Your task to perform on an android device: open app "Contacts" (install if not already installed) Image 0: 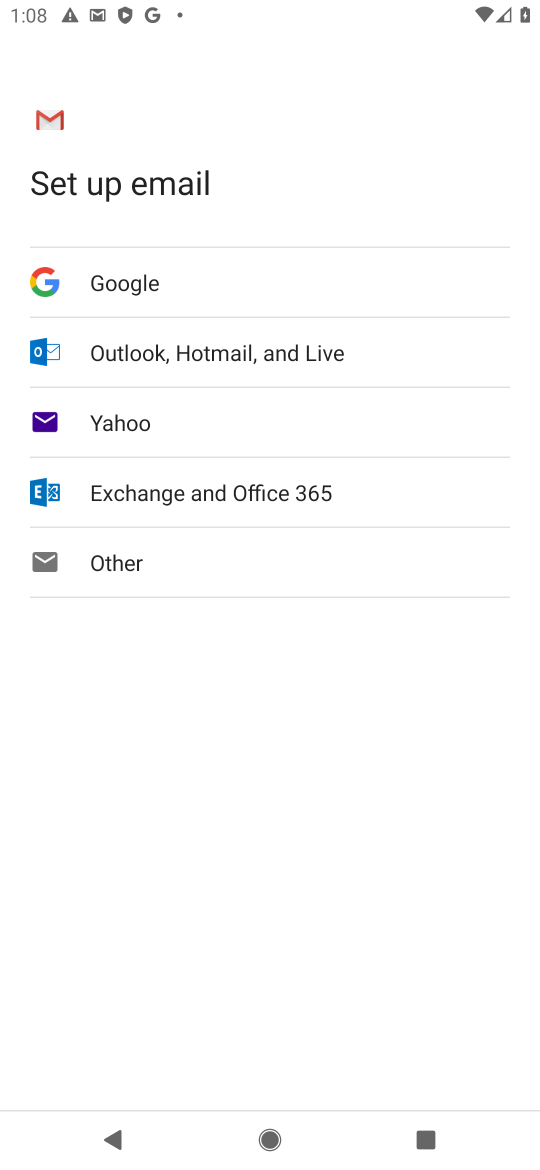
Step 0: press home button
Your task to perform on an android device: open app "Contacts" (install if not already installed) Image 1: 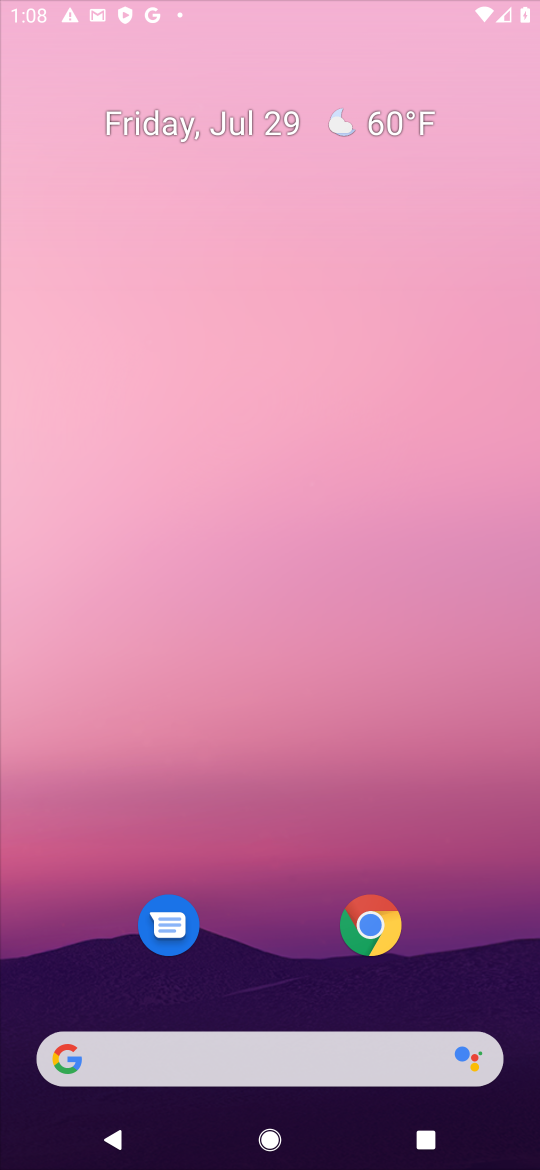
Step 1: drag from (302, 978) to (352, 6)
Your task to perform on an android device: open app "Contacts" (install if not already installed) Image 2: 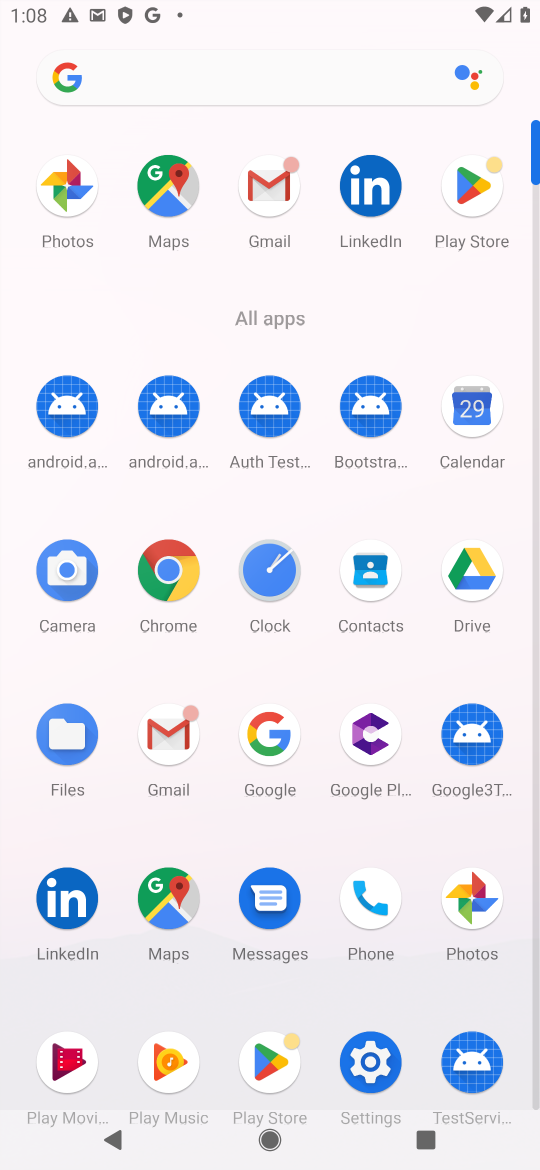
Step 2: click (488, 189)
Your task to perform on an android device: open app "Contacts" (install if not already installed) Image 3: 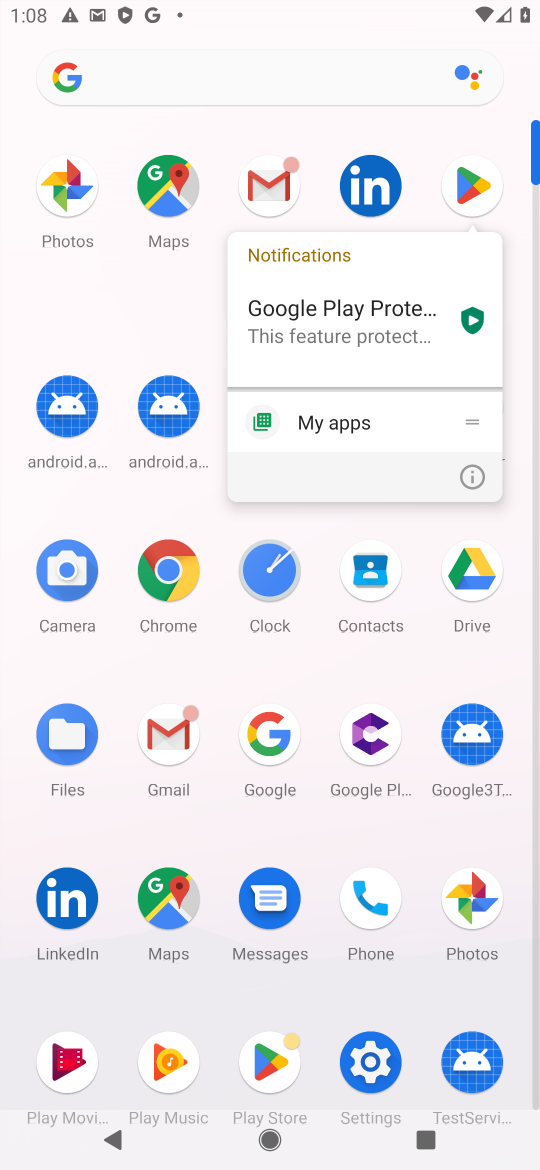
Step 3: click (488, 189)
Your task to perform on an android device: open app "Contacts" (install if not already installed) Image 4: 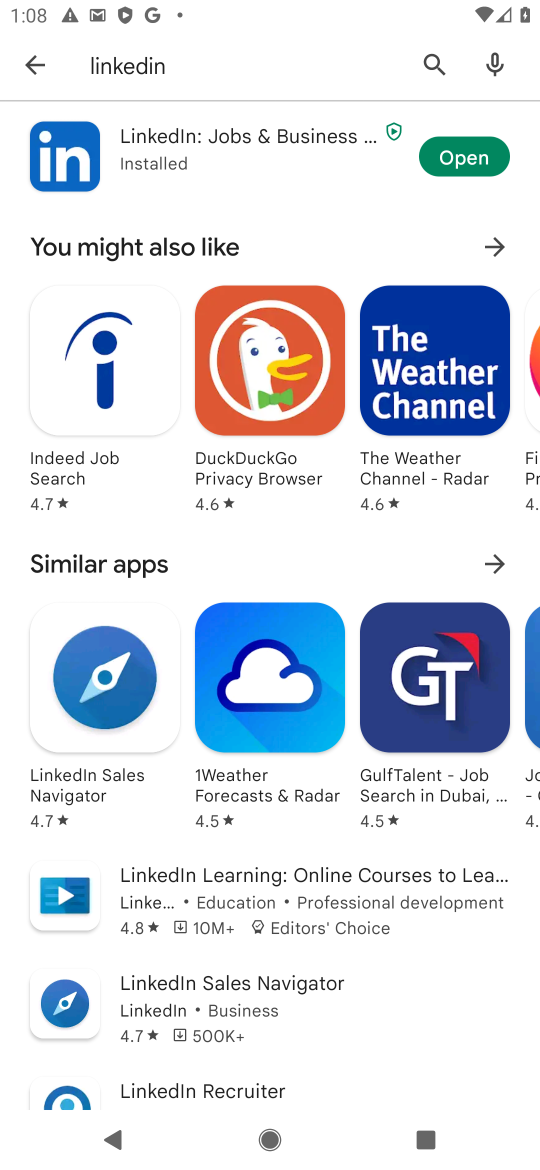
Step 4: click (488, 189)
Your task to perform on an android device: open app "Contacts" (install if not already installed) Image 5: 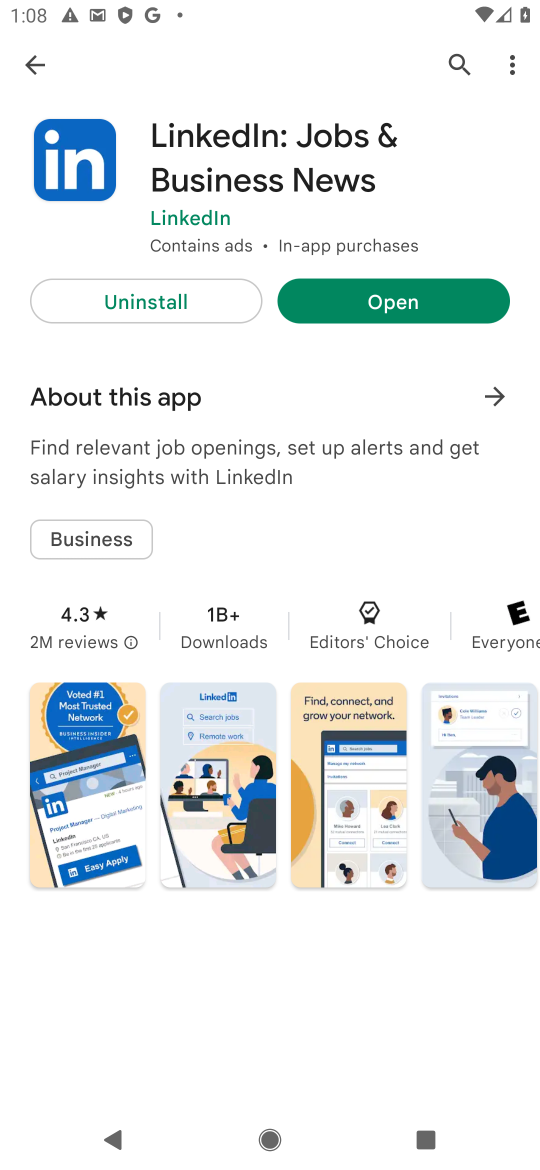
Step 5: click (423, 66)
Your task to perform on an android device: open app "Contacts" (install if not already installed) Image 6: 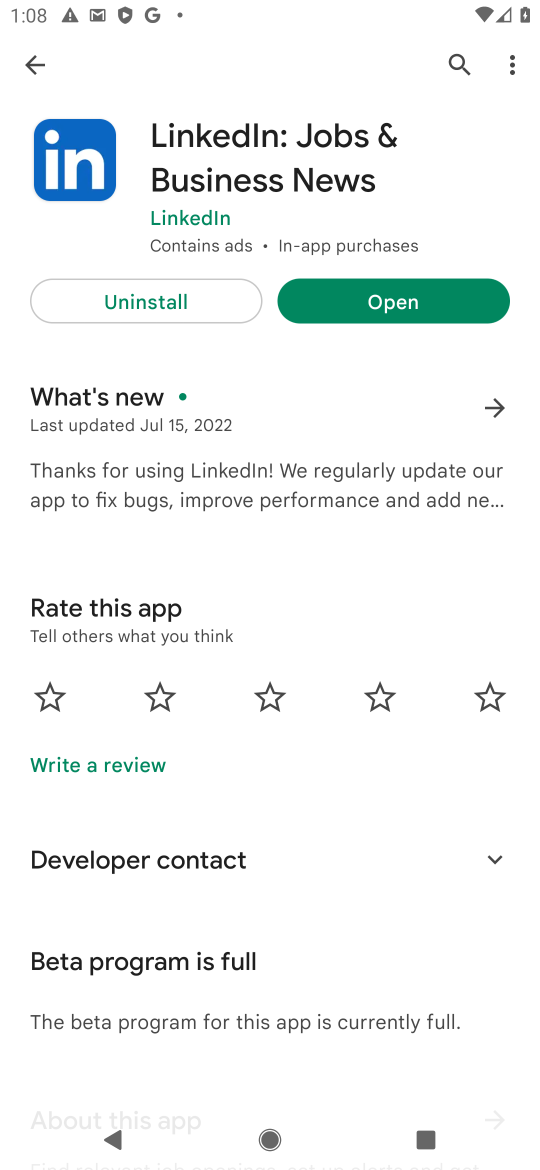
Step 6: click (445, 62)
Your task to perform on an android device: open app "Contacts" (install if not already installed) Image 7: 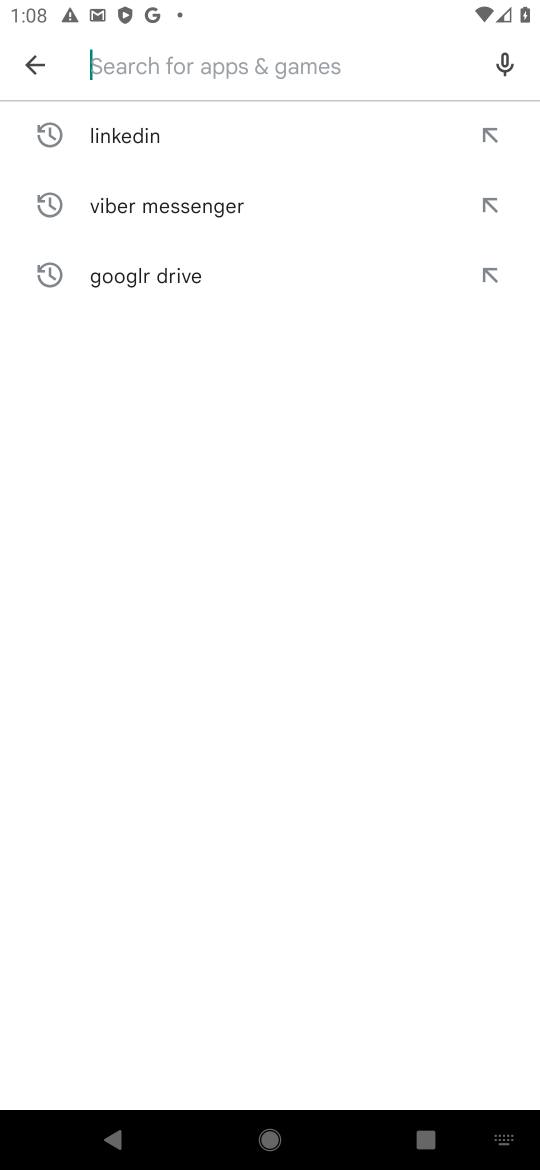
Step 7: type "contacts"
Your task to perform on an android device: open app "Contacts" (install if not already installed) Image 8: 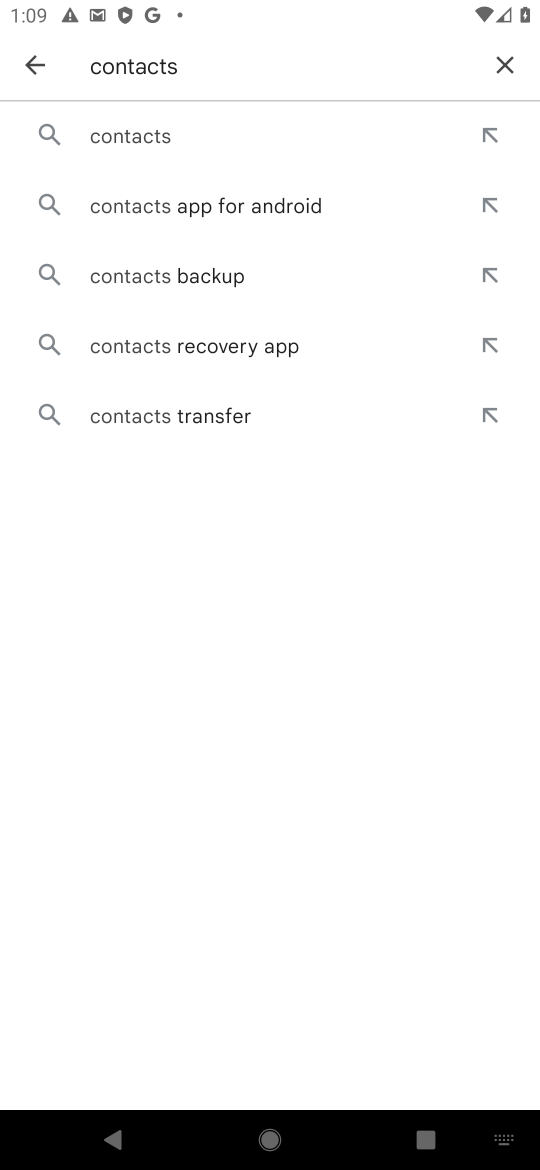
Step 8: click (122, 132)
Your task to perform on an android device: open app "Contacts" (install if not already installed) Image 9: 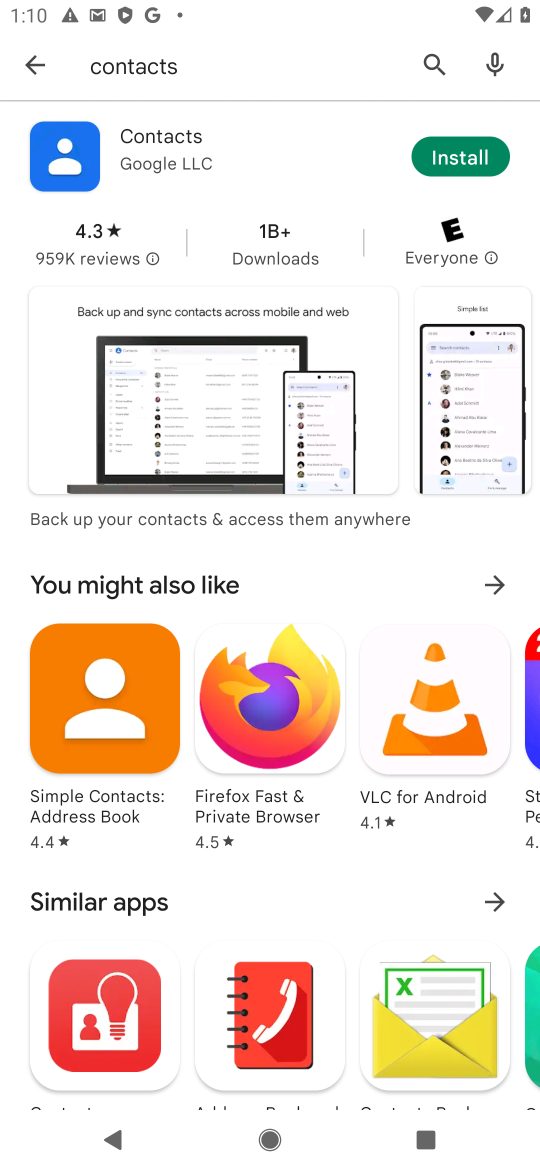
Step 9: click (462, 157)
Your task to perform on an android device: open app "Contacts" (install if not already installed) Image 10: 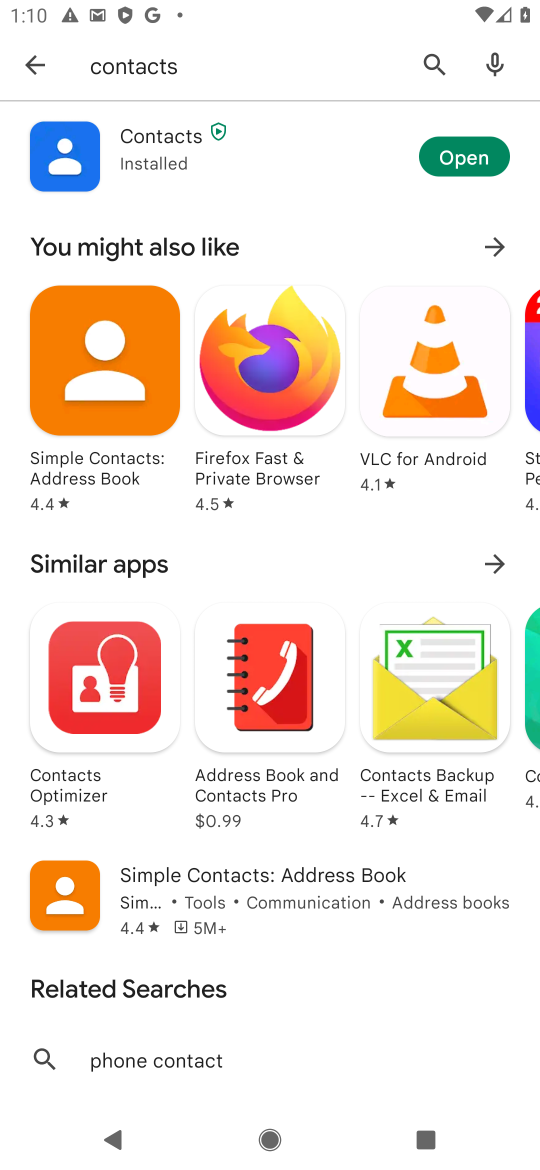
Step 10: click (471, 150)
Your task to perform on an android device: open app "Contacts" (install if not already installed) Image 11: 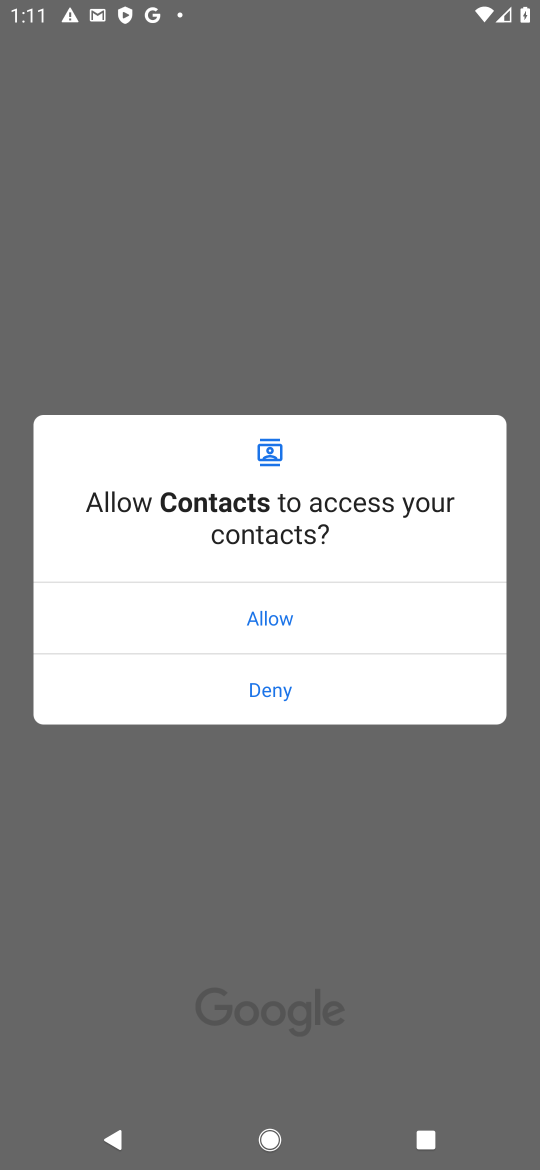
Step 11: click (291, 617)
Your task to perform on an android device: open app "Contacts" (install if not already installed) Image 12: 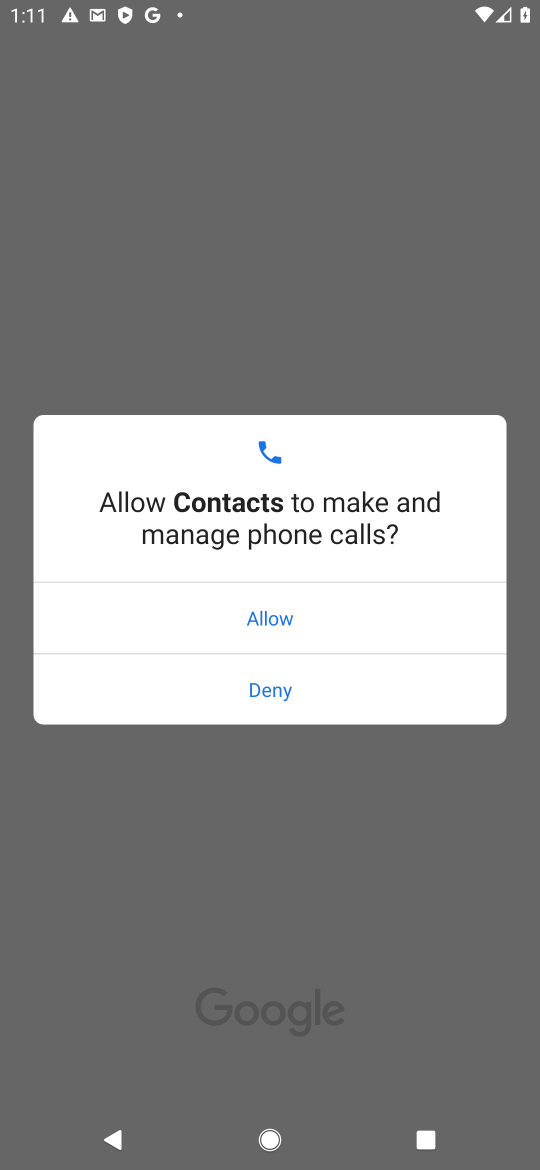
Step 12: click (291, 617)
Your task to perform on an android device: open app "Contacts" (install if not already installed) Image 13: 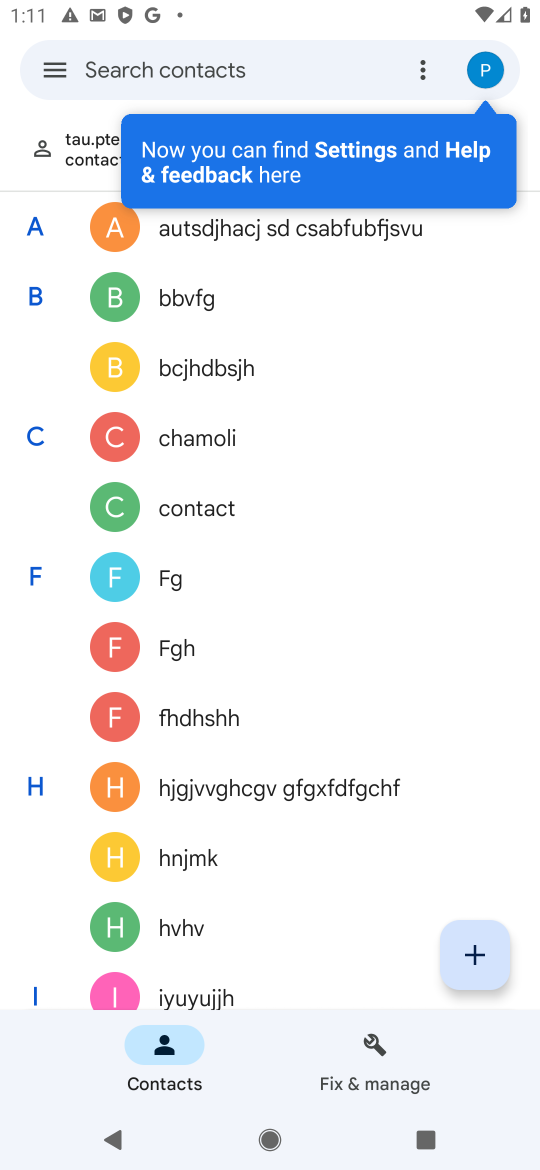
Step 13: task complete